Your task to perform on an android device: What's the weather today? Image 0: 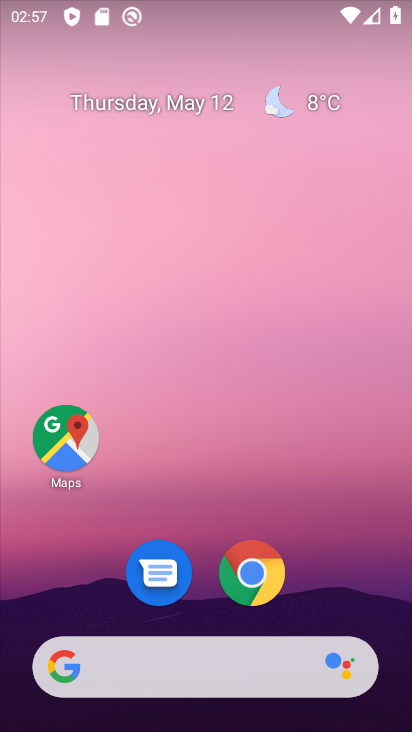
Step 0: task complete